Your task to perform on an android device: Turn off the flashlight Image 0: 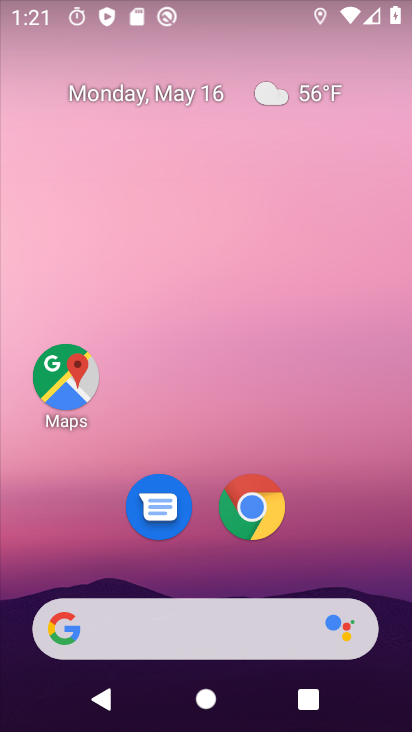
Step 0: drag from (203, 574) to (235, 181)
Your task to perform on an android device: Turn off the flashlight Image 1: 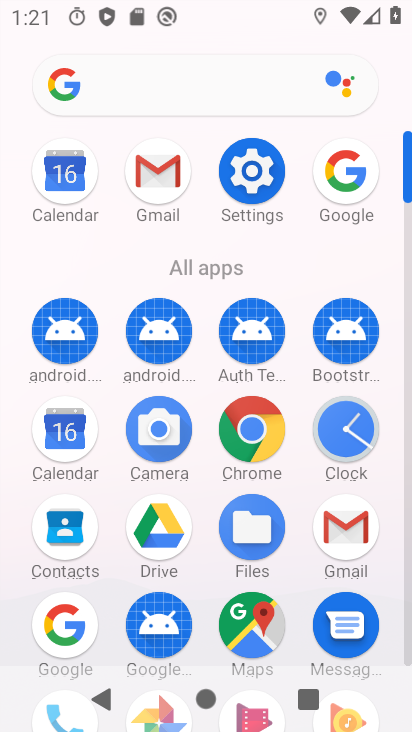
Step 1: click (246, 172)
Your task to perform on an android device: Turn off the flashlight Image 2: 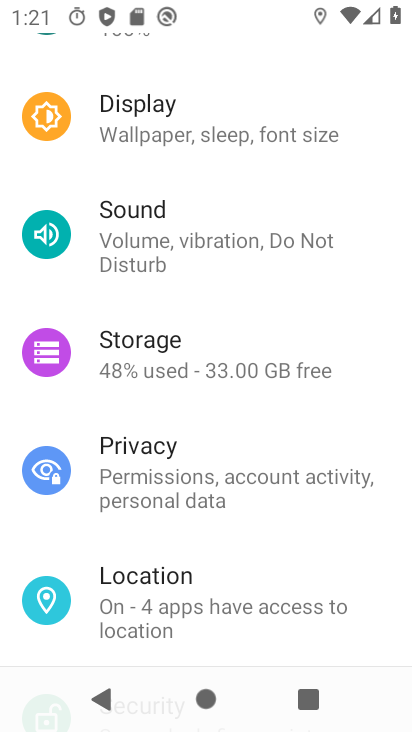
Step 2: drag from (168, 142) to (221, 610)
Your task to perform on an android device: Turn off the flashlight Image 3: 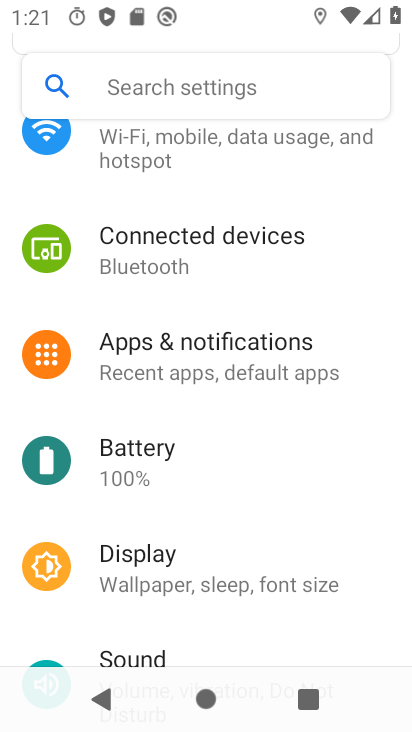
Step 3: click (180, 93)
Your task to perform on an android device: Turn off the flashlight Image 4: 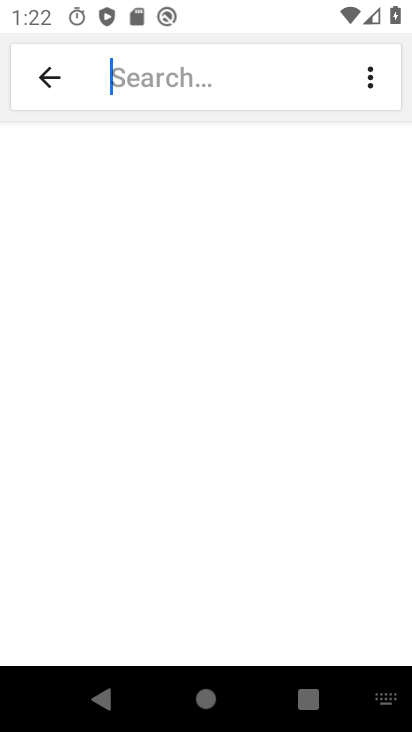
Step 4: type "flash"
Your task to perform on an android device: Turn off the flashlight Image 5: 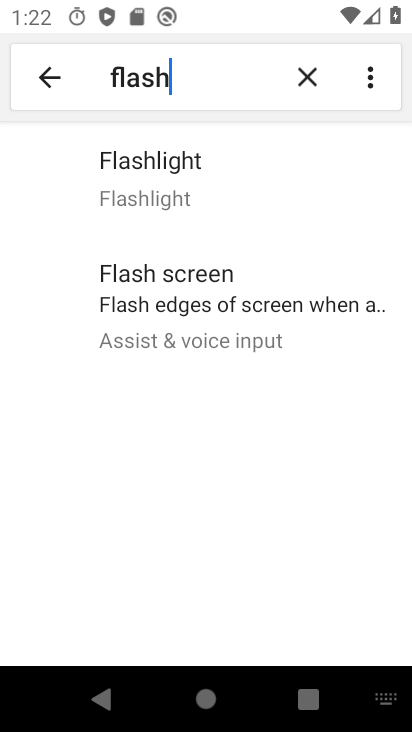
Step 5: task complete